Your task to perform on an android device: Open Google Maps and go to "Timeline" Image 0: 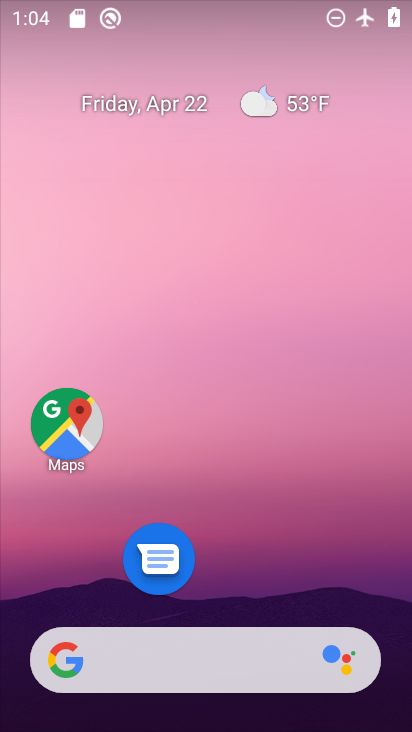
Step 0: drag from (231, 727) to (231, 104)
Your task to perform on an android device: Open Google Maps and go to "Timeline" Image 1: 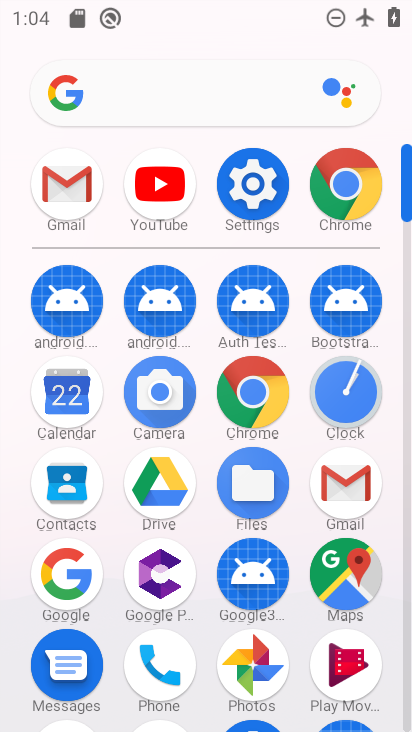
Step 1: click (347, 569)
Your task to perform on an android device: Open Google Maps and go to "Timeline" Image 2: 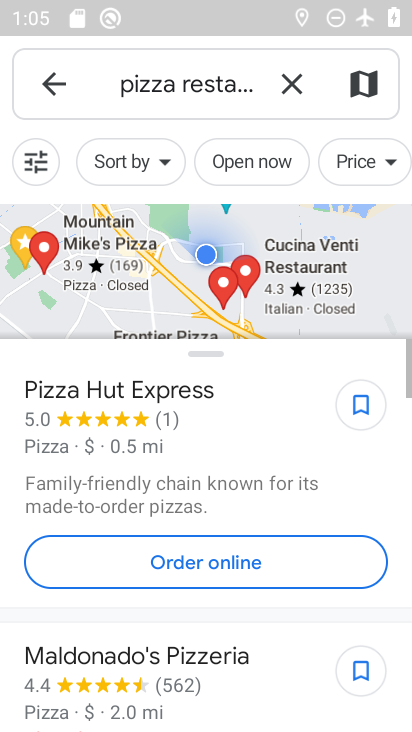
Step 2: click (45, 77)
Your task to perform on an android device: Open Google Maps and go to "Timeline" Image 3: 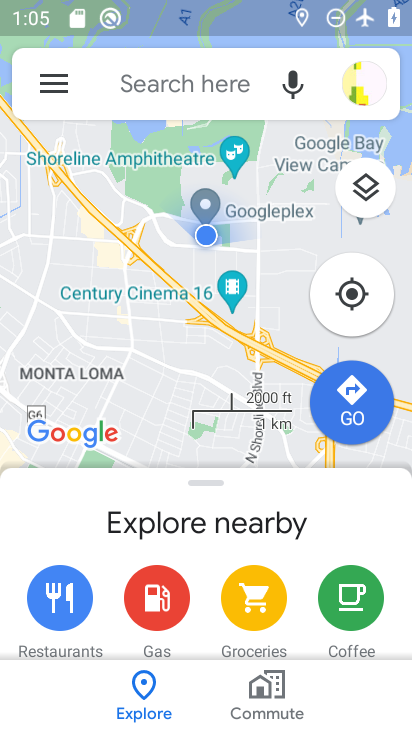
Step 3: click (46, 82)
Your task to perform on an android device: Open Google Maps and go to "Timeline" Image 4: 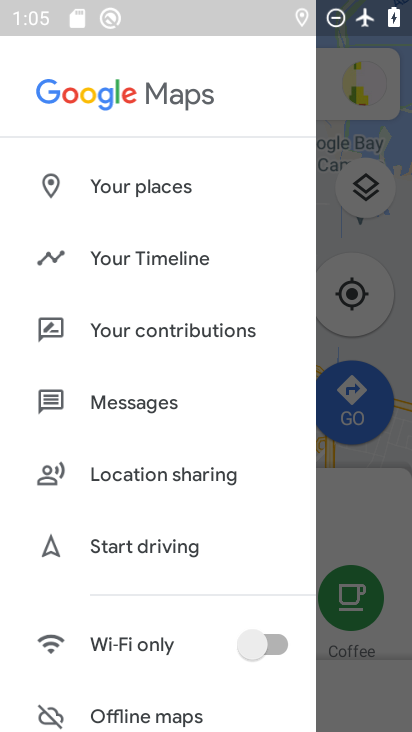
Step 4: click (137, 259)
Your task to perform on an android device: Open Google Maps and go to "Timeline" Image 5: 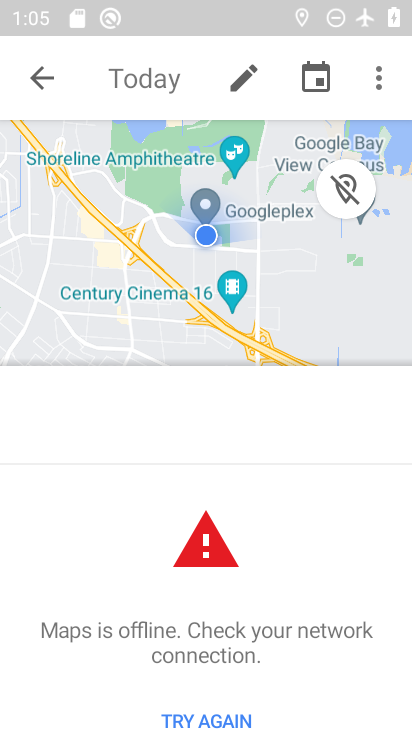
Step 5: task complete